Your task to perform on an android device: read, delete, or share a saved page in the chrome app Image 0: 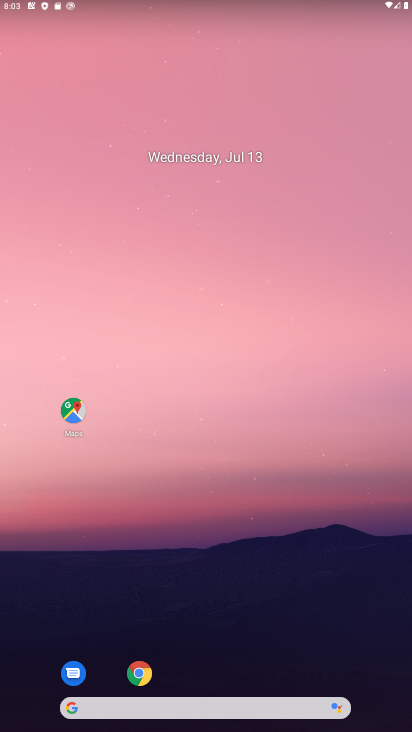
Step 0: drag from (254, 650) to (232, 101)
Your task to perform on an android device: read, delete, or share a saved page in the chrome app Image 1: 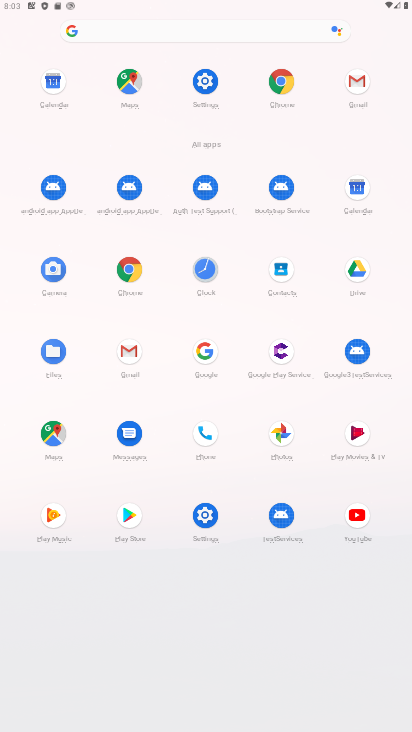
Step 1: click (129, 271)
Your task to perform on an android device: read, delete, or share a saved page in the chrome app Image 2: 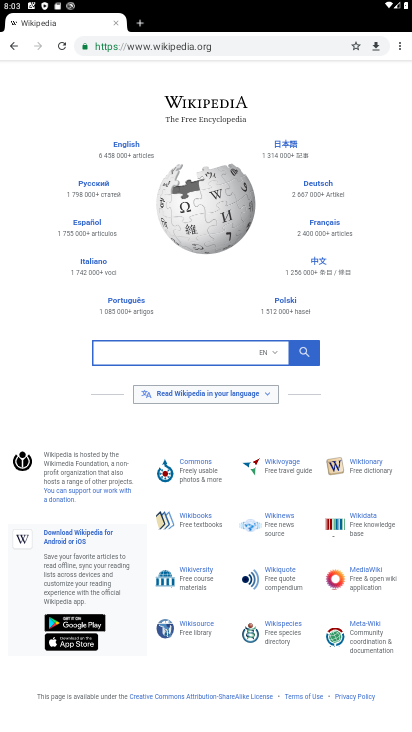
Step 2: task complete